Your task to perform on an android device: install app "Speedtest by Ookla" Image 0: 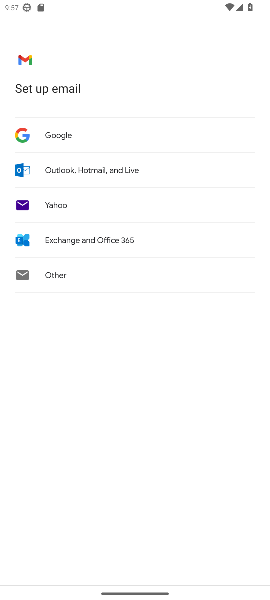
Step 0: press home button
Your task to perform on an android device: install app "Speedtest by Ookla" Image 1: 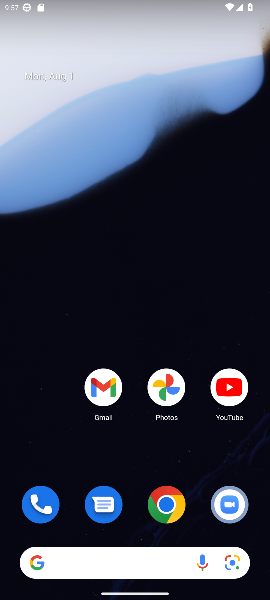
Step 1: drag from (88, 447) to (85, 153)
Your task to perform on an android device: install app "Speedtest by Ookla" Image 2: 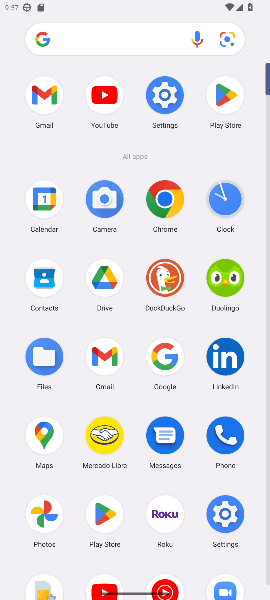
Step 2: click (219, 92)
Your task to perform on an android device: install app "Speedtest by Ookla" Image 3: 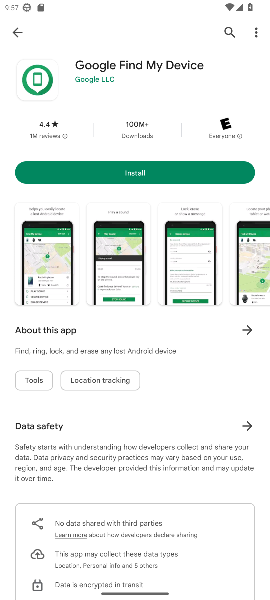
Step 3: click (227, 33)
Your task to perform on an android device: install app "Speedtest by Ookla" Image 4: 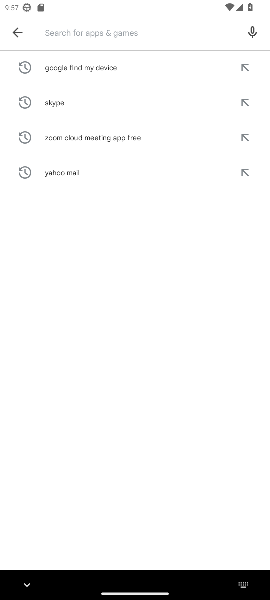
Step 4: type "speedtest by ookla"
Your task to perform on an android device: install app "Speedtest by Ookla" Image 5: 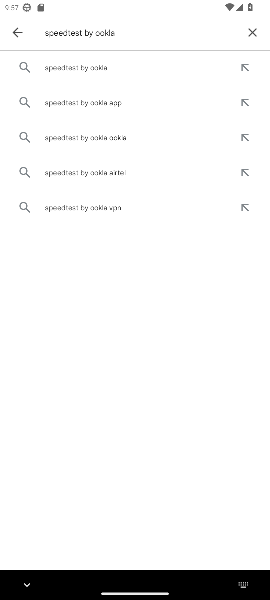
Step 5: click (57, 70)
Your task to perform on an android device: install app "Speedtest by Ookla" Image 6: 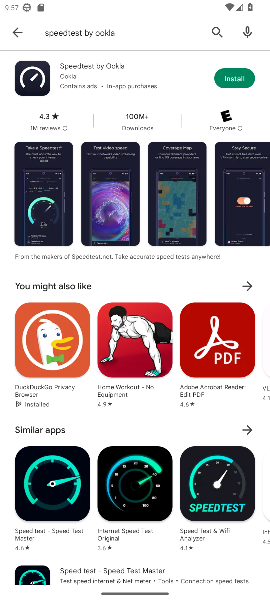
Step 6: click (94, 65)
Your task to perform on an android device: install app "Speedtest by Ookla" Image 7: 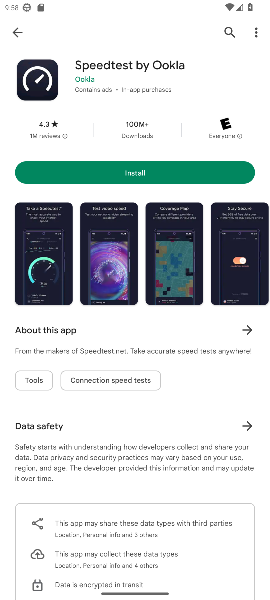
Step 7: click (155, 170)
Your task to perform on an android device: install app "Speedtest by Ookla" Image 8: 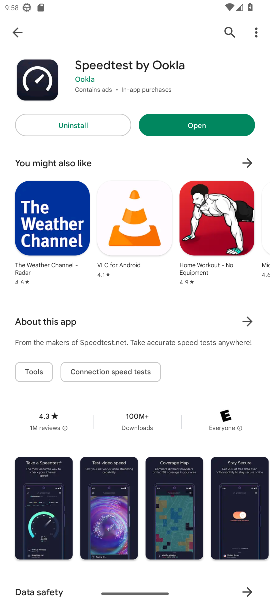
Step 8: task complete